Your task to perform on an android device: star an email in the gmail app Image 0: 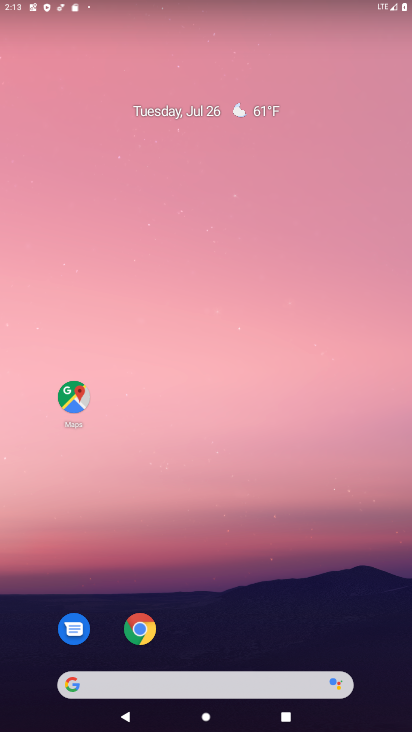
Step 0: drag from (249, 609) to (246, 68)
Your task to perform on an android device: star an email in the gmail app Image 1: 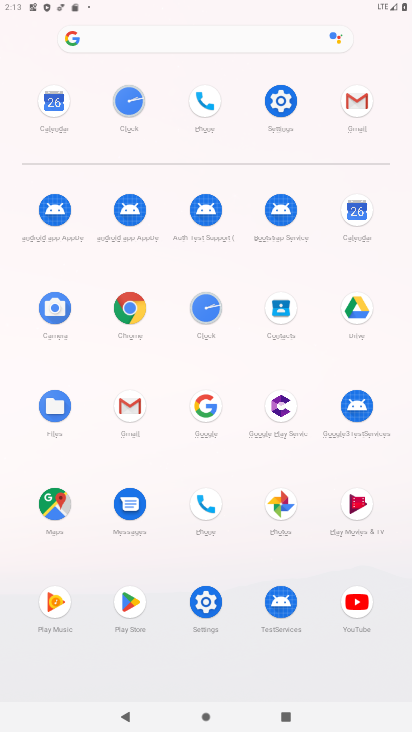
Step 1: click (352, 94)
Your task to perform on an android device: star an email in the gmail app Image 2: 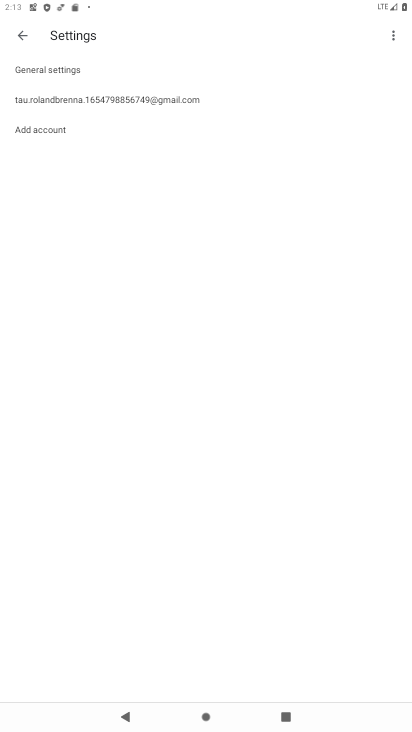
Step 2: click (19, 31)
Your task to perform on an android device: star an email in the gmail app Image 3: 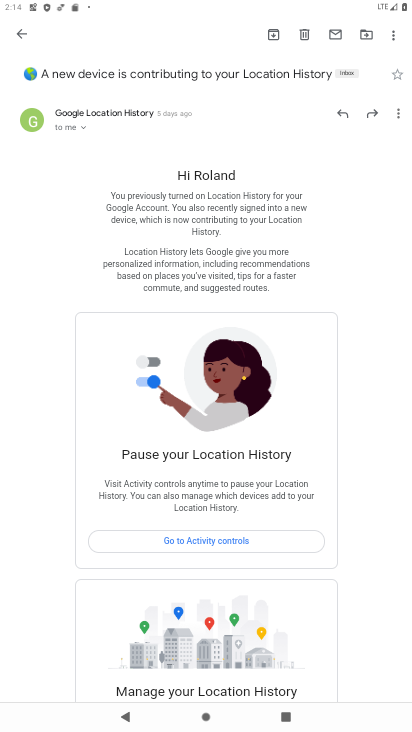
Step 3: click (16, 28)
Your task to perform on an android device: star an email in the gmail app Image 4: 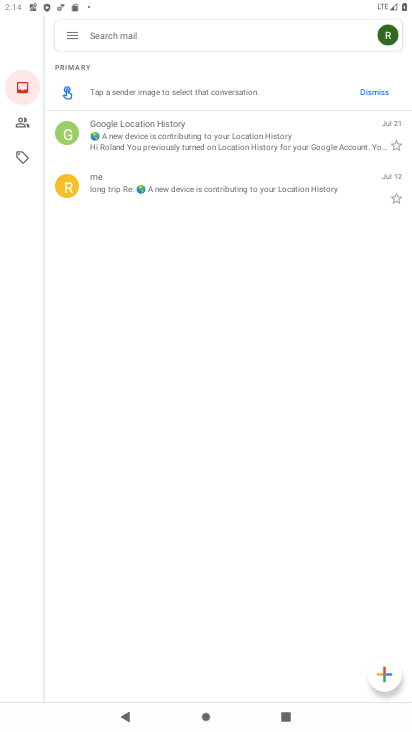
Step 4: click (392, 145)
Your task to perform on an android device: star an email in the gmail app Image 5: 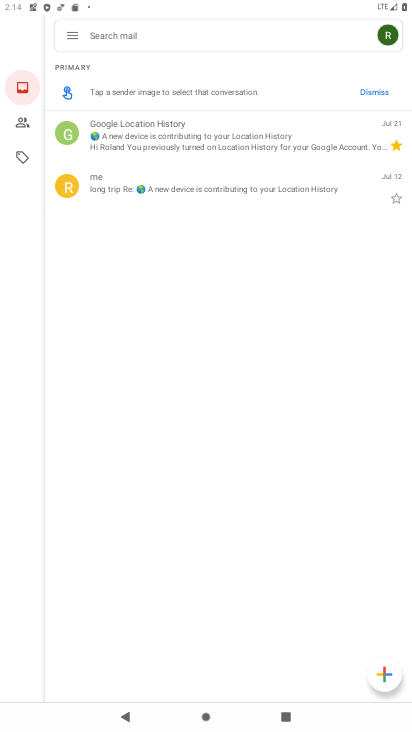
Step 5: task complete